Your task to perform on an android device: Open network settings Image 0: 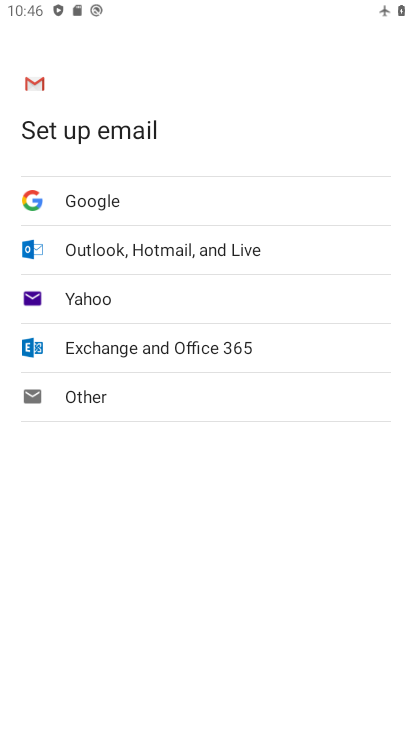
Step 0: press home button
Your task to perform on an android device: Open network settings Image 1: 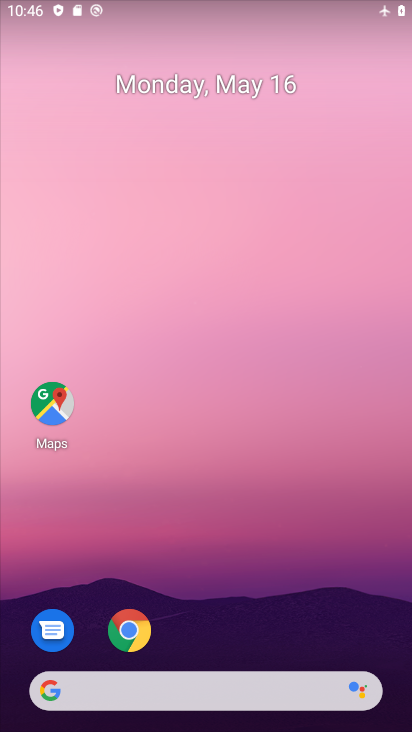
Step 1: drag from (233, 639) to (229, 104)
Your task to perform on an android device: Open network settings Image 2: 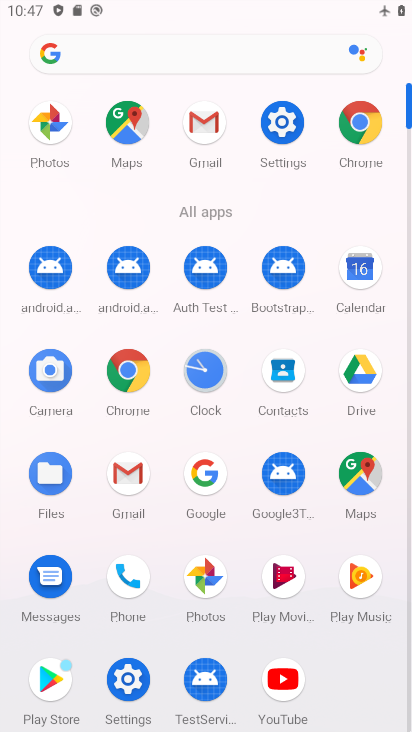
Step 2: click (289, 127)
Your task to perform on an android device: Open network settings Image 3: 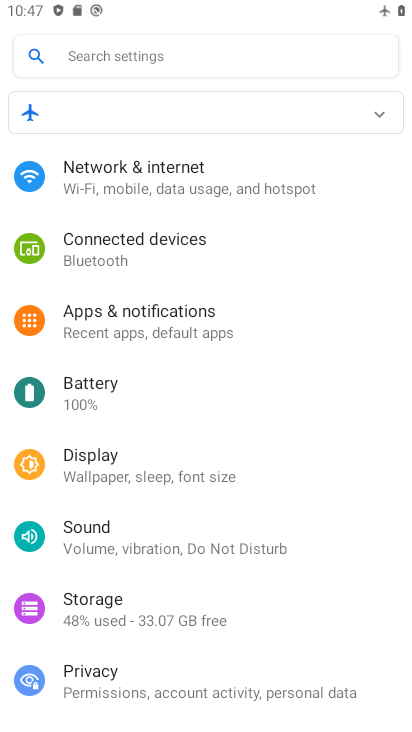
Step 3: click (276, 178)
Your task to perform on an android device: Open network settings Image 4: 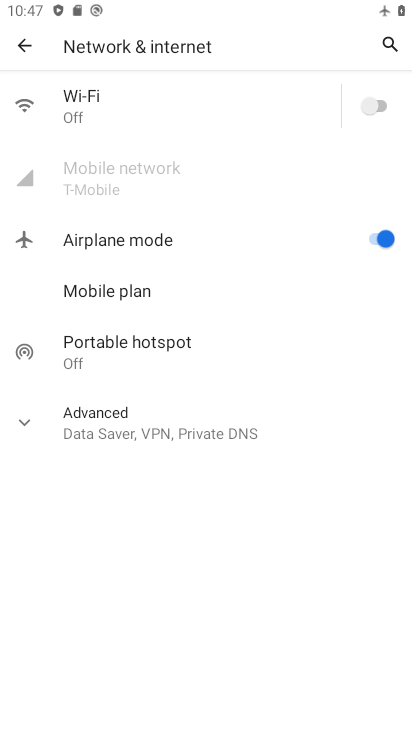
Step 4: task complete